Your task to perform on an android device: Go to Maps Image 0: 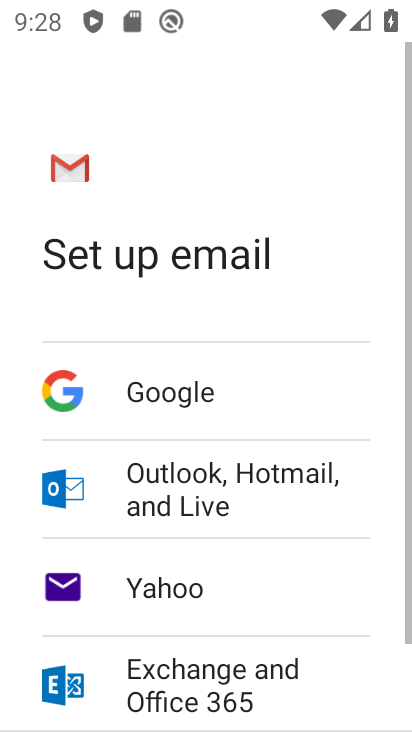
Step 0: press home button
Your task to perform on an android device: Go to Maps Image 1: 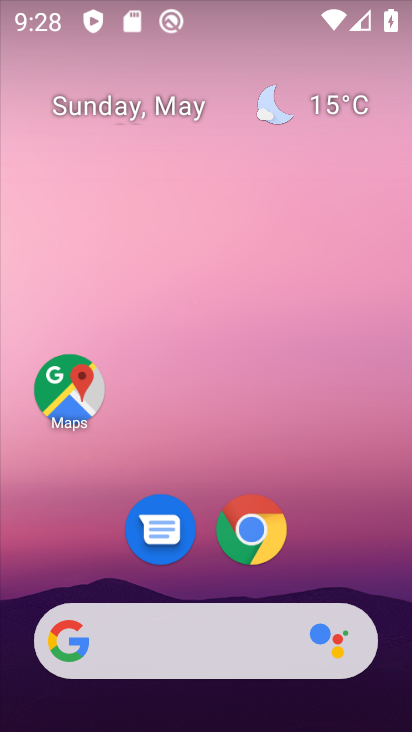
Step 1: drag from (322, 647) to (278, 63)
Your task to perform on an android device: Go to Maps Image 2: 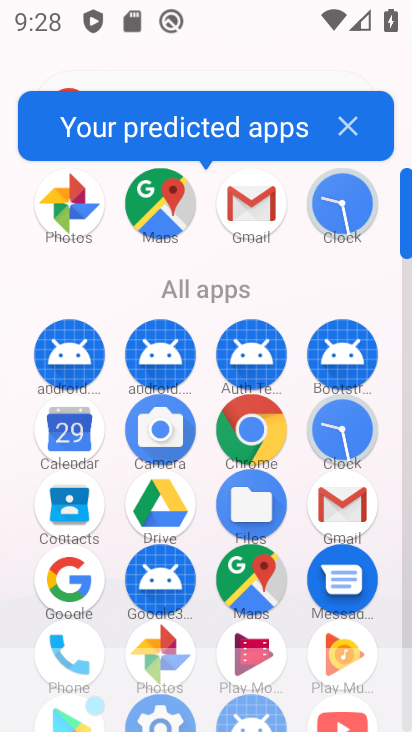
Step 2: click (256, 587)
Your task to perform on an android device: Go to Maps Image 3: 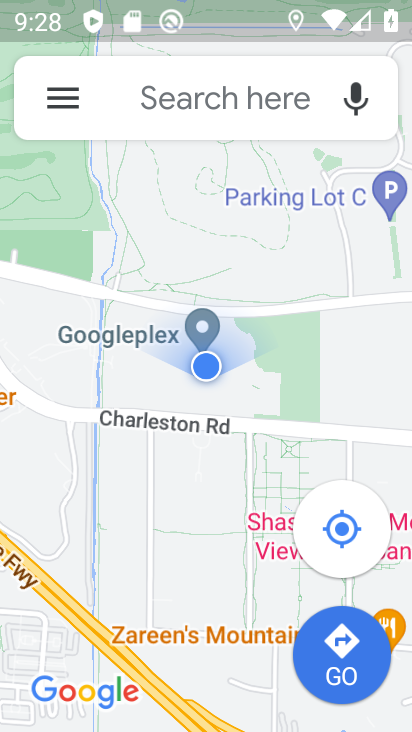
Step 3: task complete